Your task to perform on an android device: turn off location history Image 0: 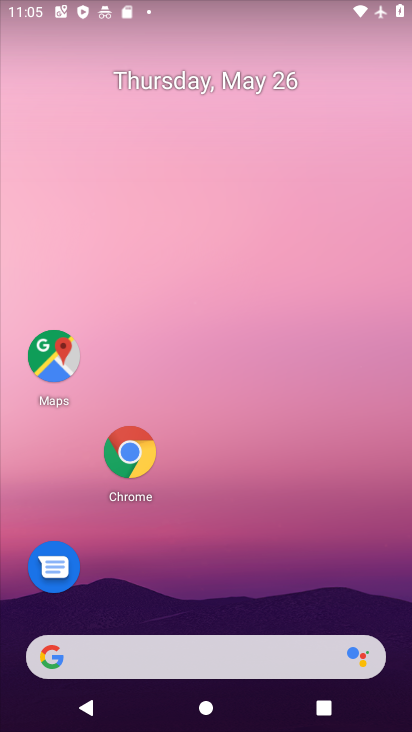
Step 0: press home button
Your task to perform on an android device: turn off location history Image 1: 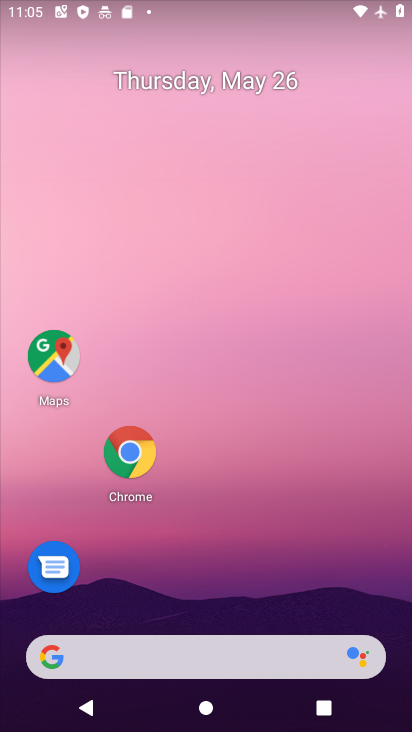
Step 1: click (53, 361)
Your task to perform on an android device: turn off location history Image 2: 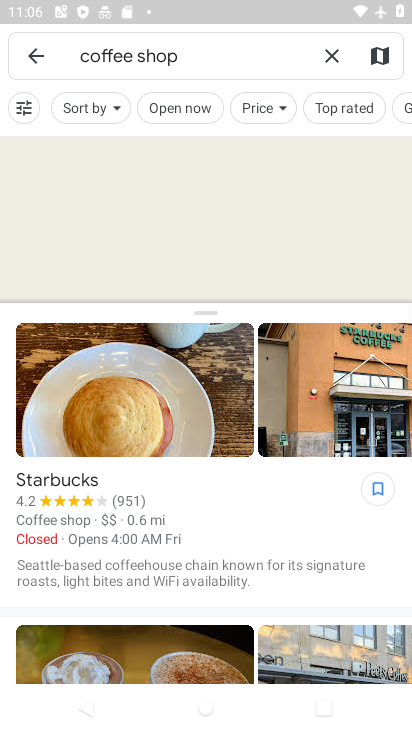
Step 2: click (33, 56)
Your task to perform on an android device: turn off location history Image 3: 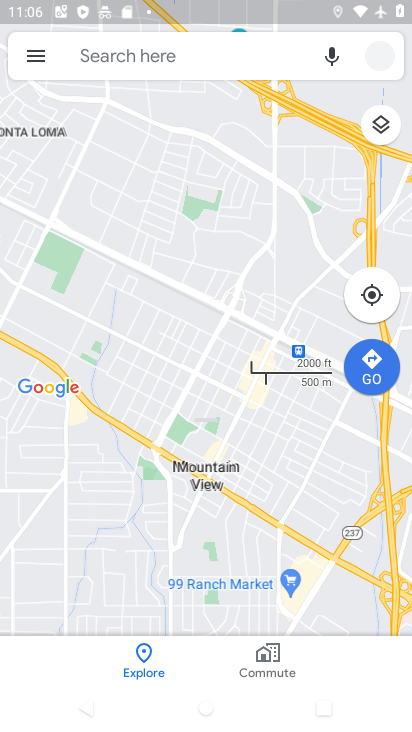
Step 3: click (33, 56)
Your task to perform on an android device: turn off location history Image 4: 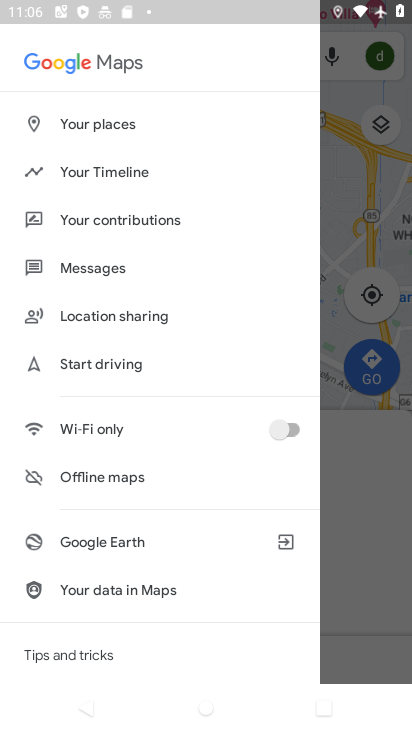
Step 4: click (88, 164)
Your task to perform on an android device: turn off location history Image 5: 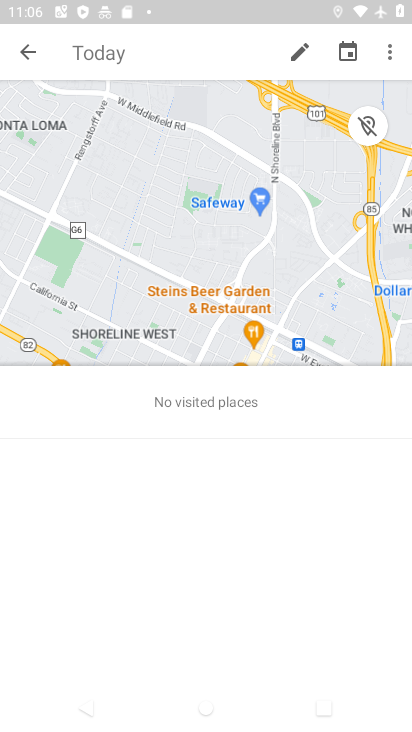
Step 5: drag from (392, 51) to (370, 91)
Your task to perform on an android device: turn off location history Image 6: 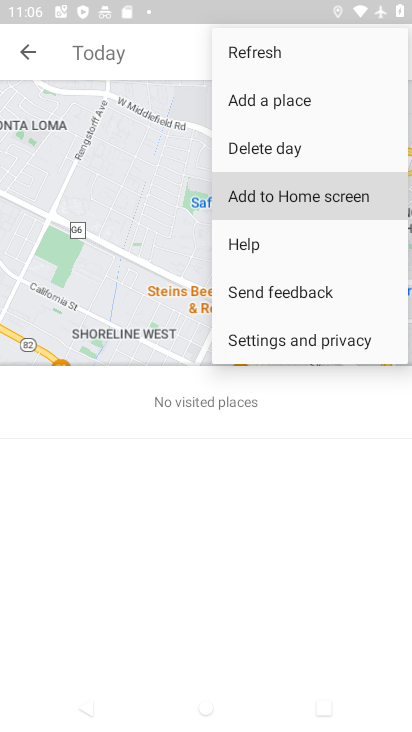
Step 6: click (384, 51)
Your task to perform on an android device: turn off location history Image 7: 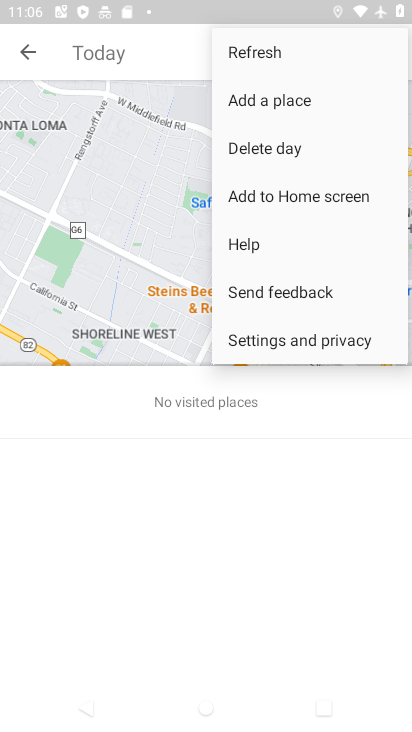
Step 7: click (291, 337)
Your task to perform on an android device: turn off location history Image 8: 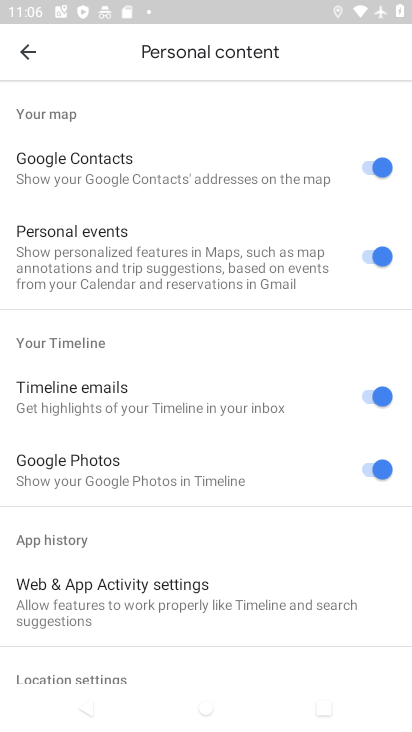
Step 8: drag from (221, 581) to (306, 151)
Your task to perform on an android device: turn off location history Image 9: 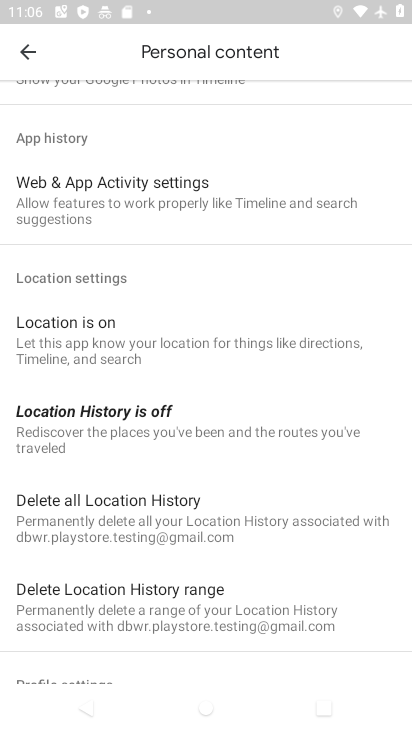
Step 9: click (127, 416)
Your task to perform on an android device: turn off location history Image 10: 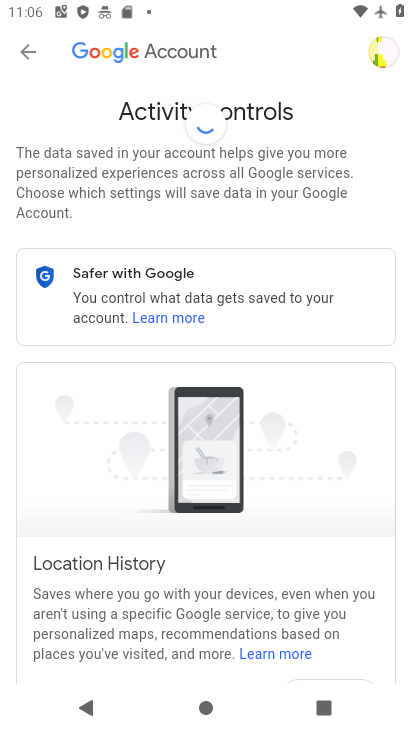
Step 10: task complete